Your task to perform on an android device: install app "Skype" Image 0: 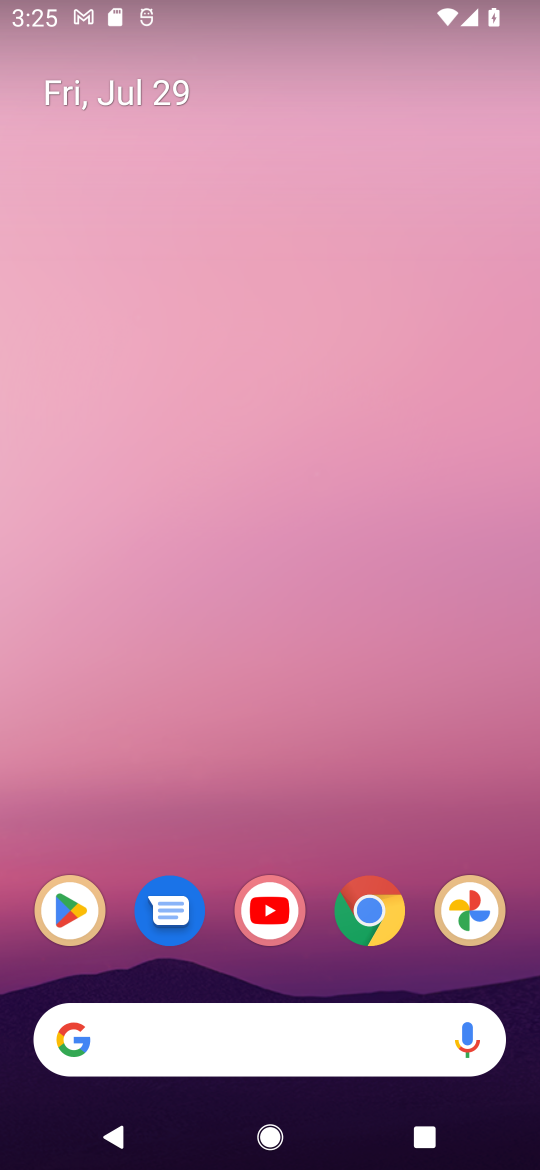
Step 0: drag from (306, 870) to (391, 185)
Your task to perform on an android device: install app "Skype" Image 1: 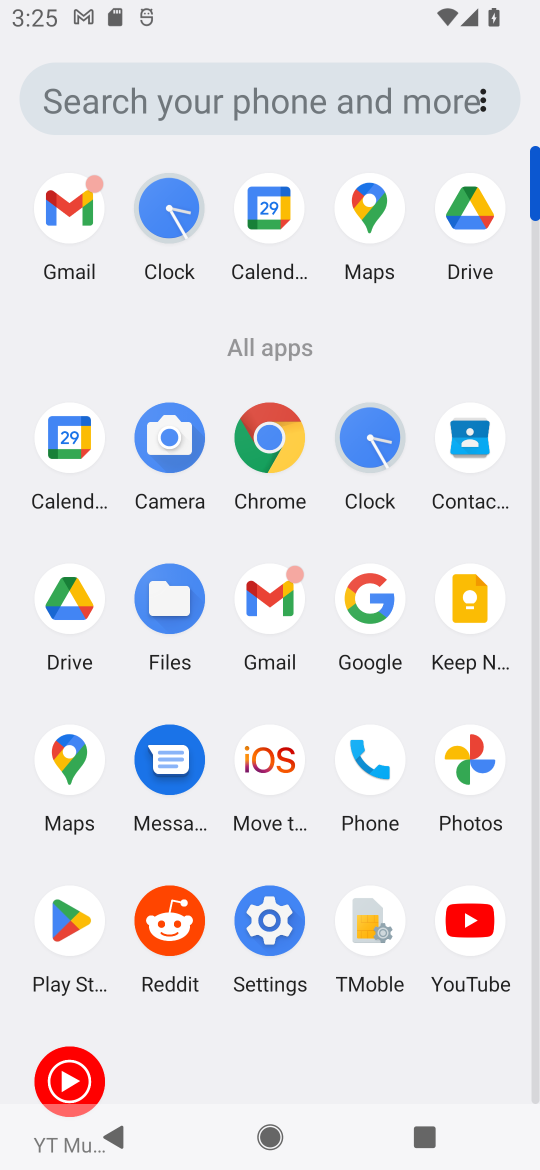
Step 1: click (54, 941)
Your task to perform on an android device: install app "Skype" Image 2: 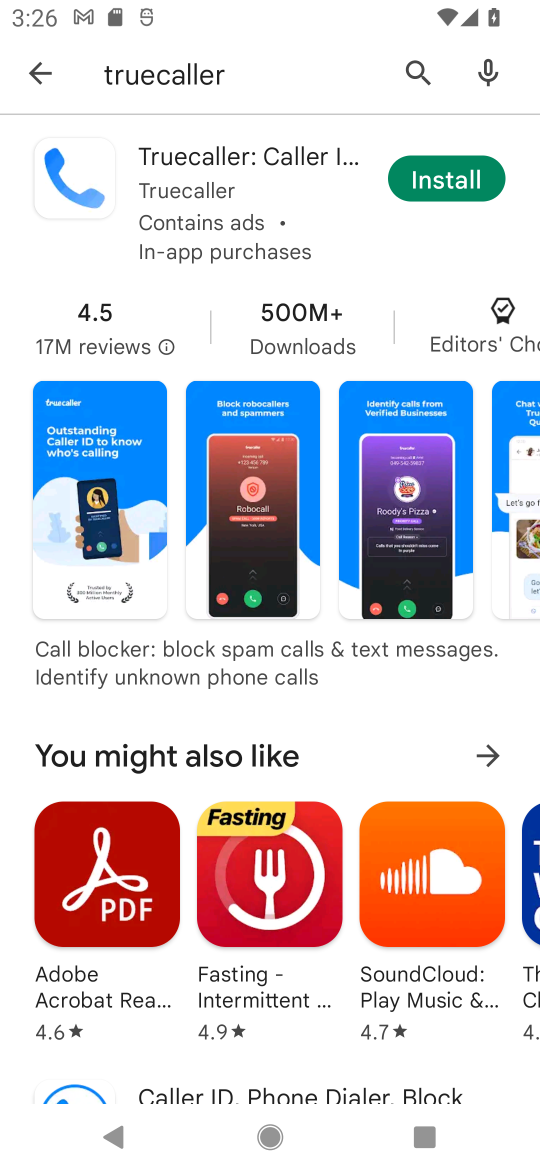
Step 2: press back button
Your task to perform on an android device: install app "Skype" Image 3: 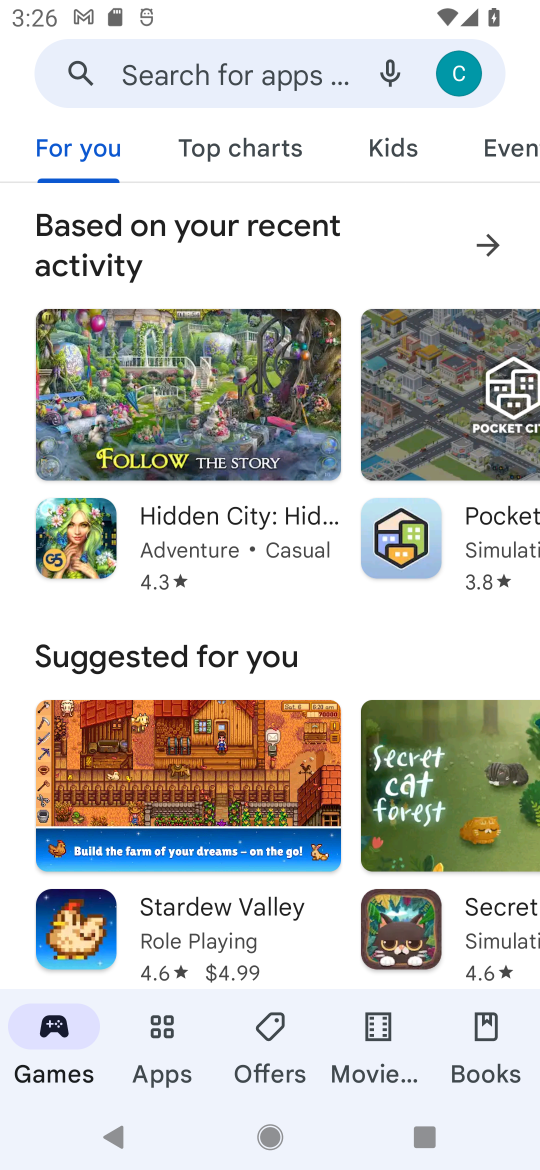
Step 3: click (205, 82)
Your task to perform on an android device: install app "Skype" Image 4: 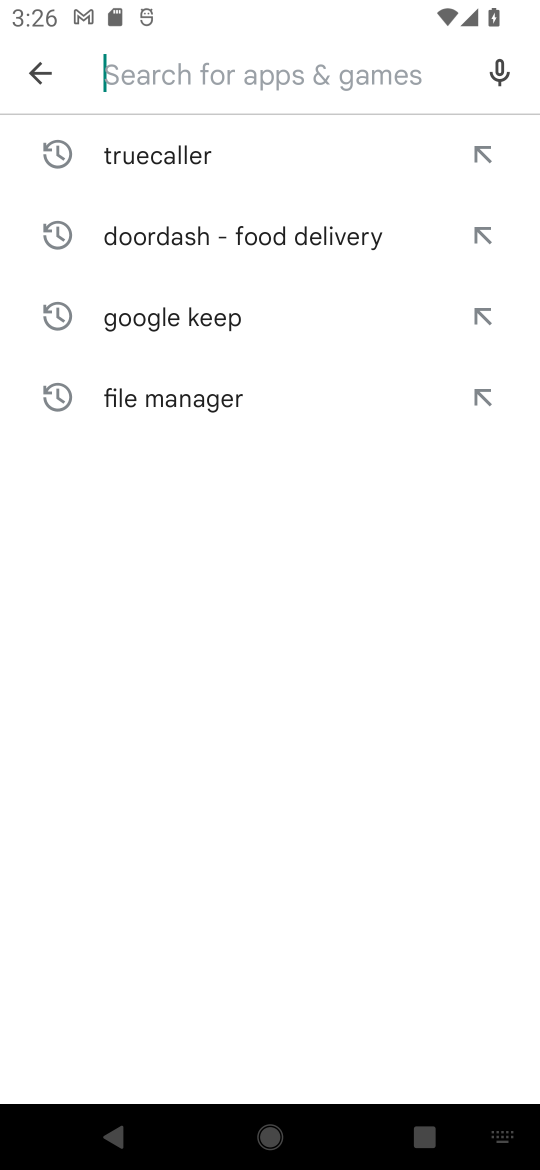
Step 4: type "Skype"
Your task to perform on an android device: install app "Skype" Image 5: 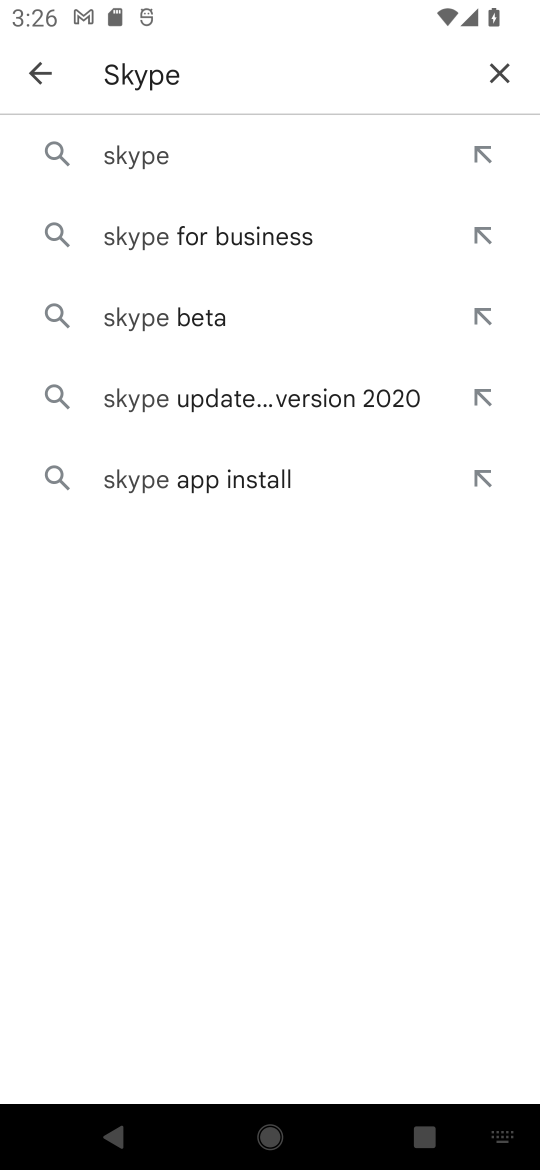
Step 5: click (132, 154)
Your task to perform on an android device: install app "Skype" Image 6: 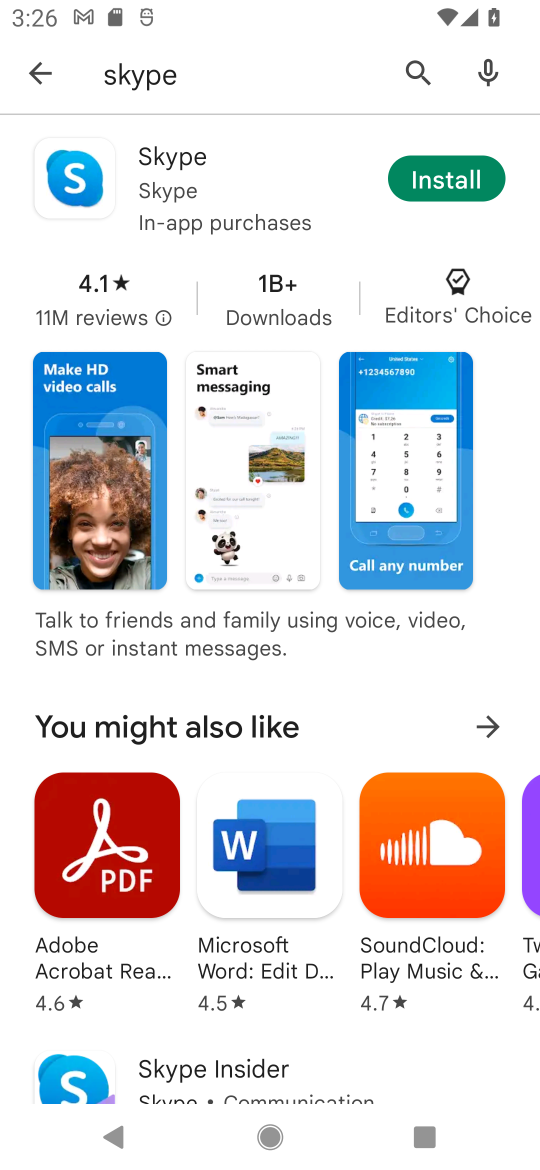
Step 6: click (425, 173)
Your task to perform on an android device: install app "Skype" Image 7: 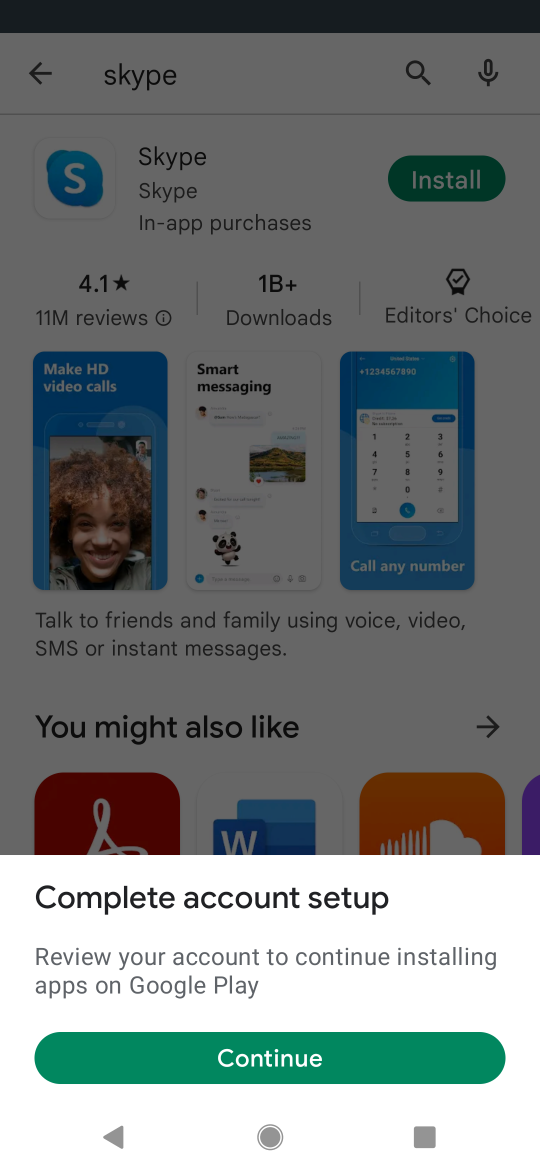
Step 7: task complete